Your task to perform on an android device: add a contact in the contacts app Image 0: 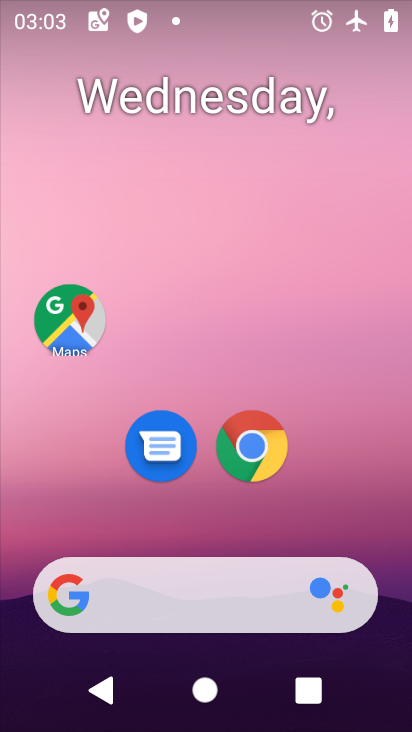
Step 0: drag from (202, 540) to (215, 153)
Your task to perform on an android device: add a contact in the contacts app Image 1: 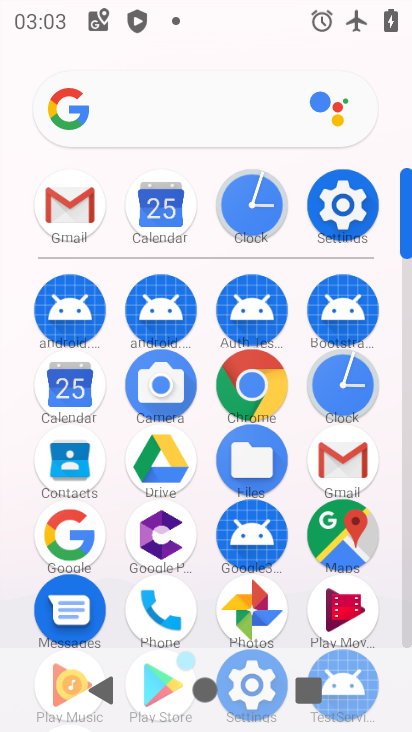
Step 1: click (72, 465)
Your task to perform on an android device: add a contact in the contacts app Image 2: 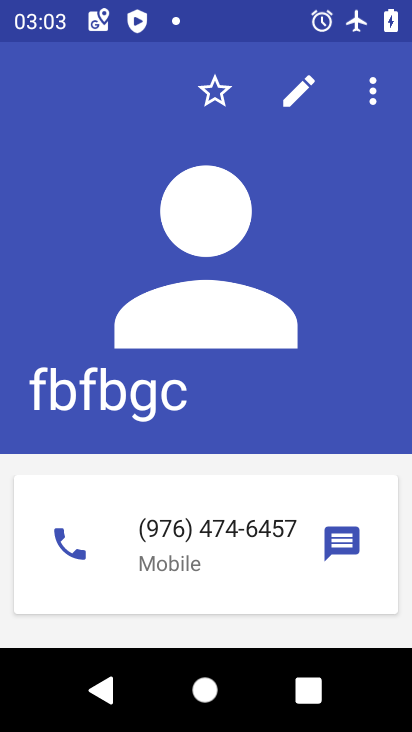
Step 2: press back button
Your task to perform on an android device: add a contact in the contacts app Image 3: 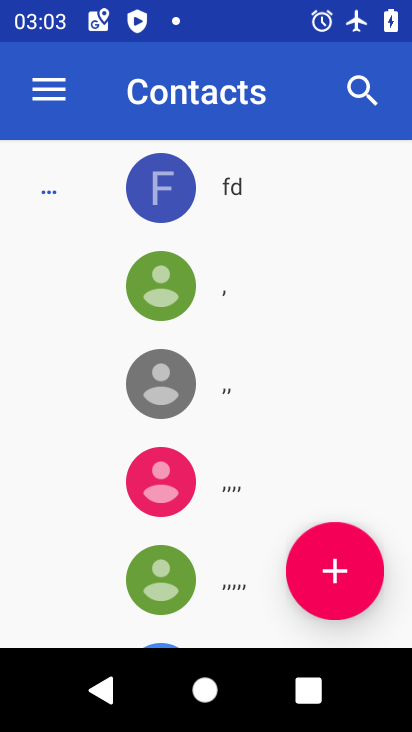
Step 3: click (343, 560)
Your task to perform on an android device: add a contact in the contacts app Image 4: 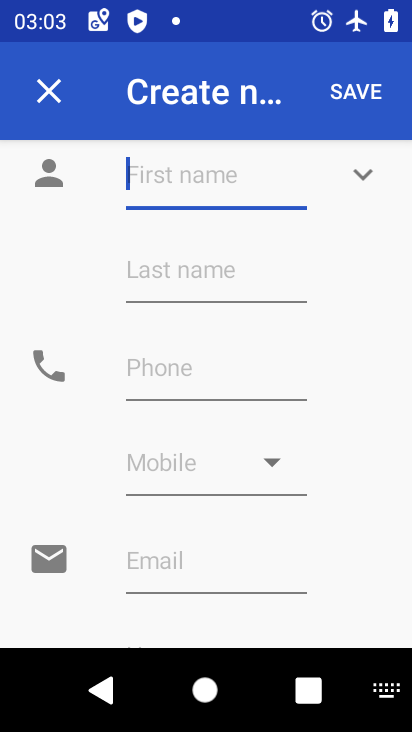
Step 4: type "fghfgh"
Your task to perform on an android device: add a contact in the contacts app Image 5: 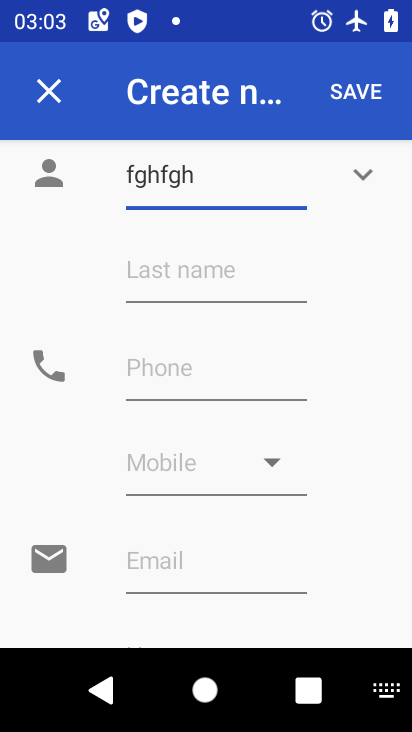
Step 5: click (162, 379)
Your task to perform on an android device: add a contact in the contacts app Image 6: 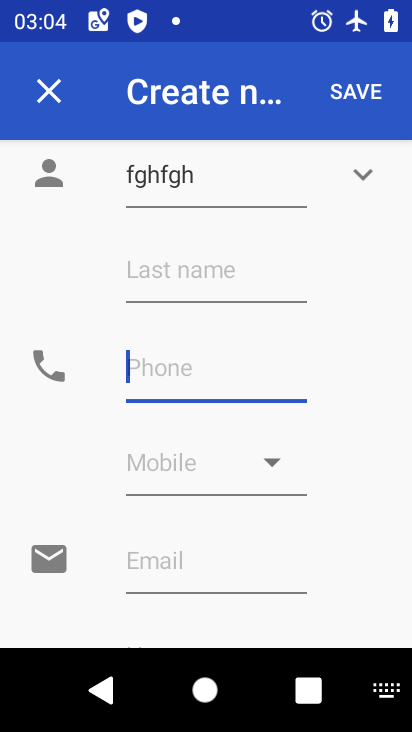
Step 6: type "857787687868"
Your task to perform on an android device: add a contact in the contacts app Image 7: 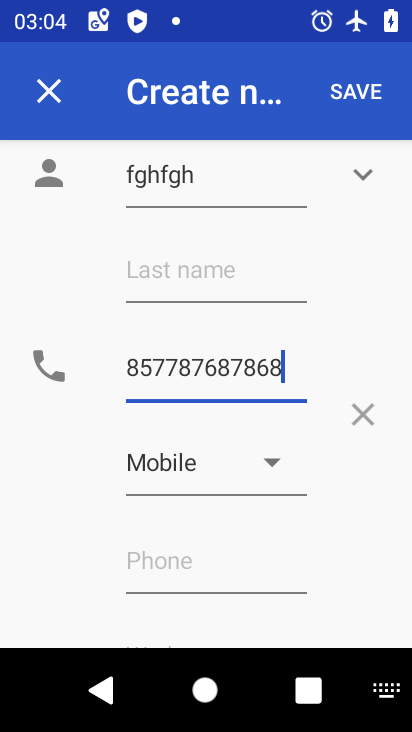
Step 7: click (365, 91)
Your task to perform on an android device: add a contact in the contacts app Image 8: 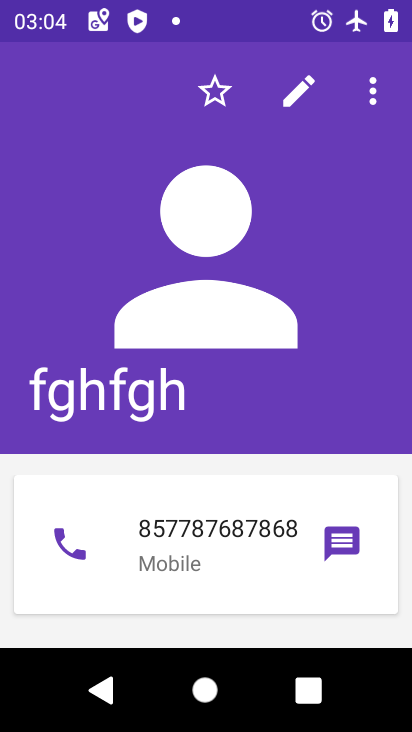
Step 8: task complete